Your task to perform on an android device: empty trash in the gmail app Image 0: 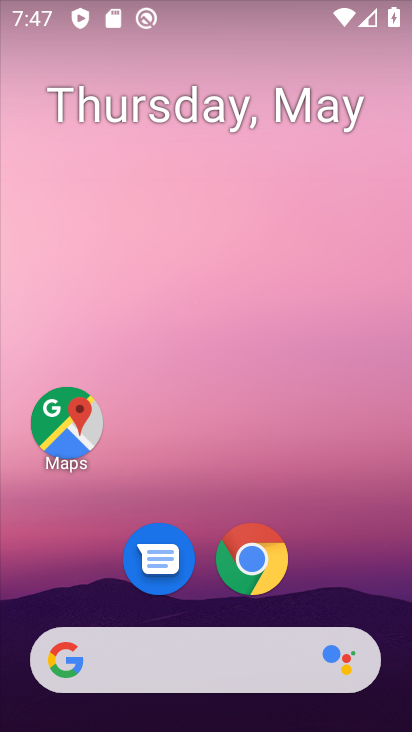
Step 0: drag from (324, 587) to (234, 2)
Your task to perform on an android device: empty trash in the gmail app Image 1: 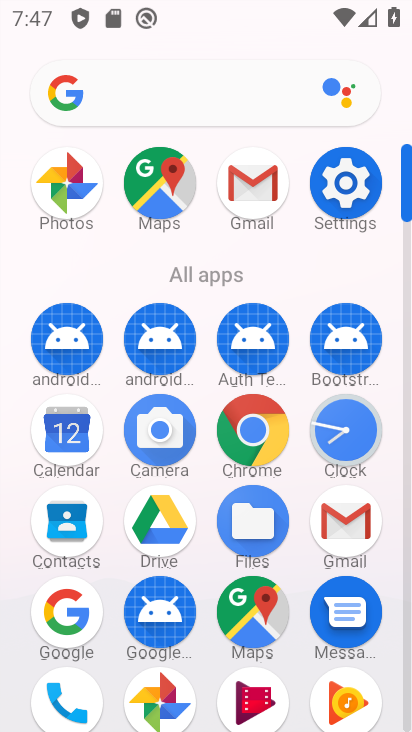
Step 1: click (254, 185)
Your task to perform on an android device: empty trash in the gmail app Image 2: 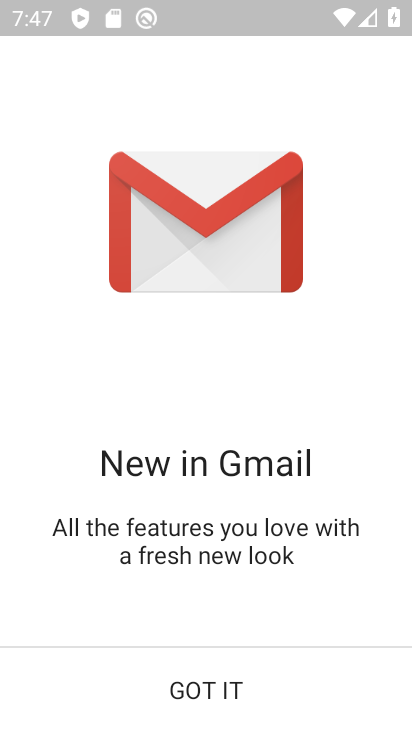
Step 2: click (220, 694)
Your task to perform on an android device: empty trash in the gmail app Image 3: 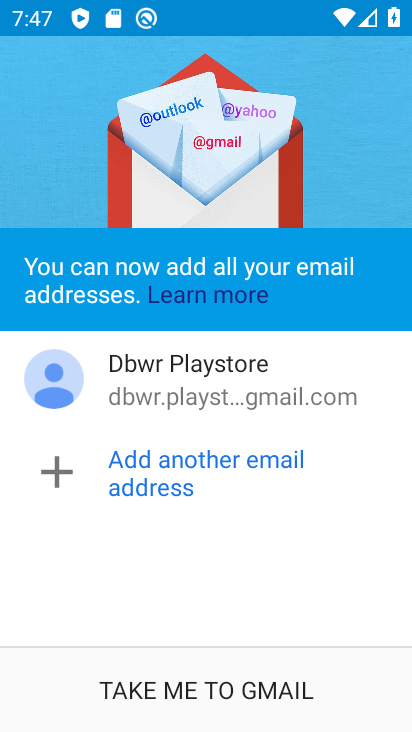
Step 3: click (220, 694)
Your task to perform on an android device: empty trash in the gmail app Image 4: 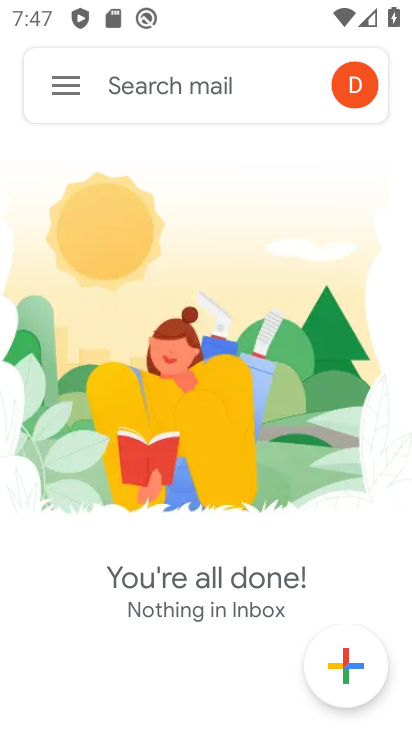
Step 4: click (64, 86)
Your task to perform on an android device: empty trash in the gmail app Image 5: 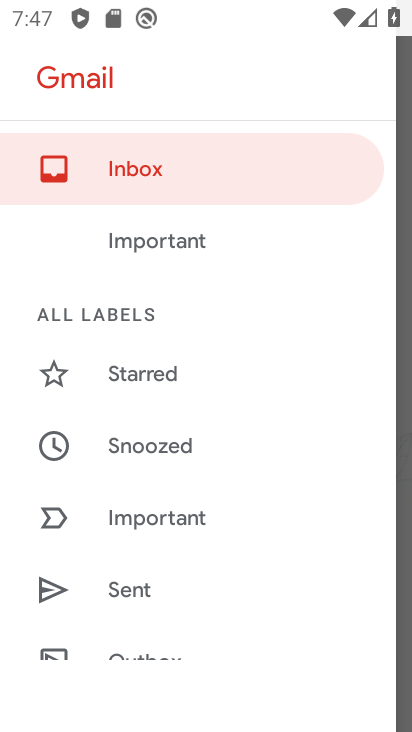
Step 5: drag from (165, 428) to (210, 274)
Your task to perform on an android device: empty trash in the gmail app Image 6: 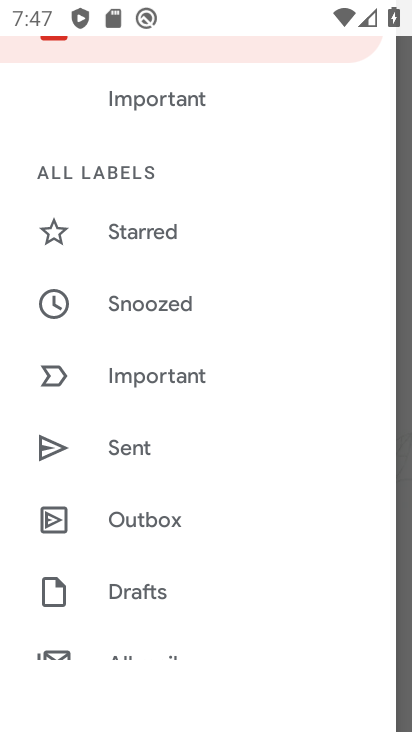
Step 6: drag from (150, 412) to (192, 311)
Your task to perform on an android device: empty trash in the gmail app Image 7: 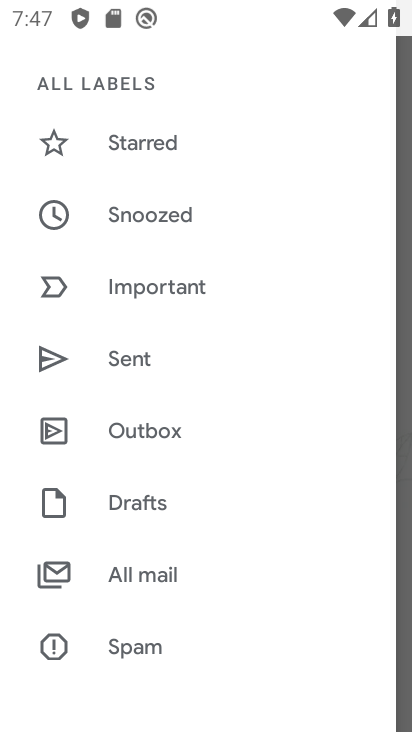
Step 7: drag from (152, 413) to (219, 324)
Your task to perform on an android device: empty trash in the gmail app Image 8: 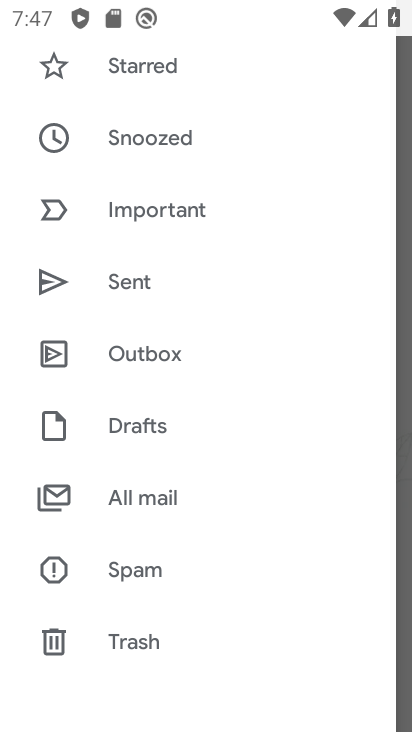
Step 8: drag from (144, 468) to (212, 350)
Your task to perform on an android device: empty trash in the gmail app Image 9: 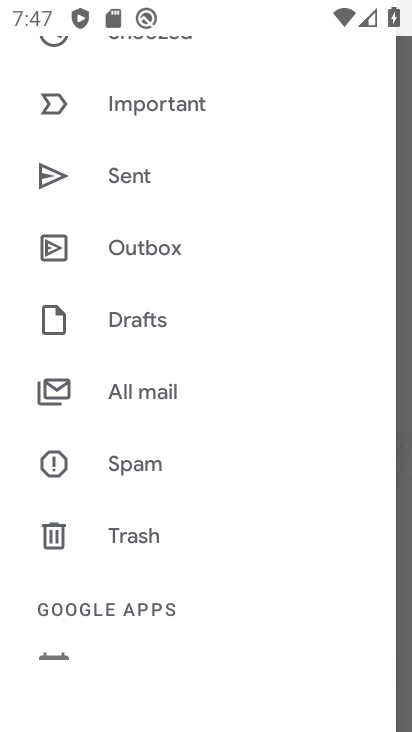
Step 9: drag from (135, 506) to (167, 356)
Your task to perform on an android device: empty trash in the gmail app Image 10: 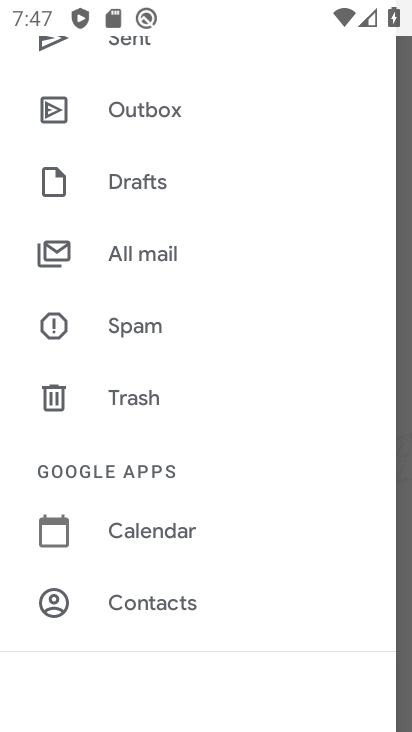
Step 10: click (136, 400)
Your task to perform on an android device: empty trash in the gmail app Image 11: 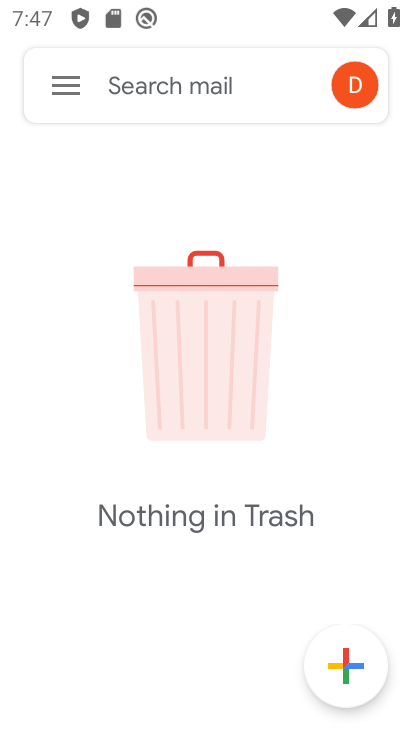
Step 11: task complete